Your task to perform on an android device: Go to Reddit.com Image 0: 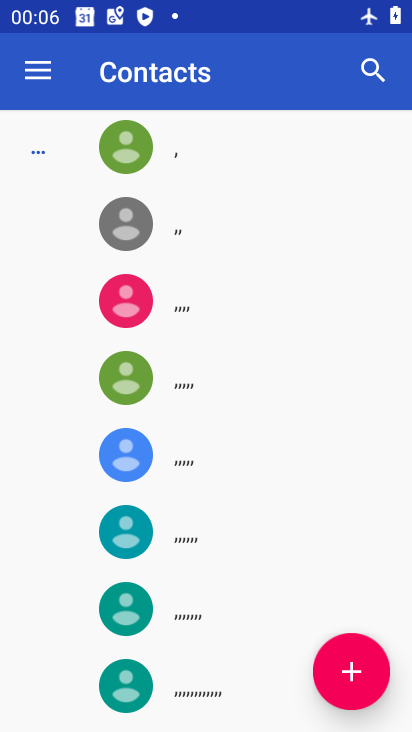
Step 0: press home button
Your task to perform on an android device: Go to Reddit.com Image 1: 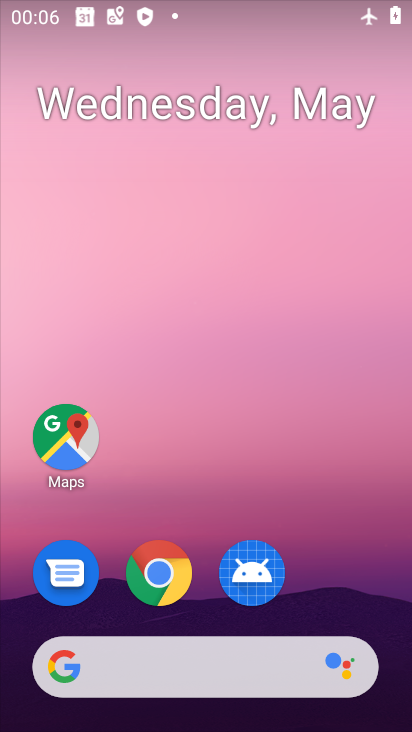
Step 1: click (202, 662)
Your task to perform on an android device: Go to Reddit.com Image 2: 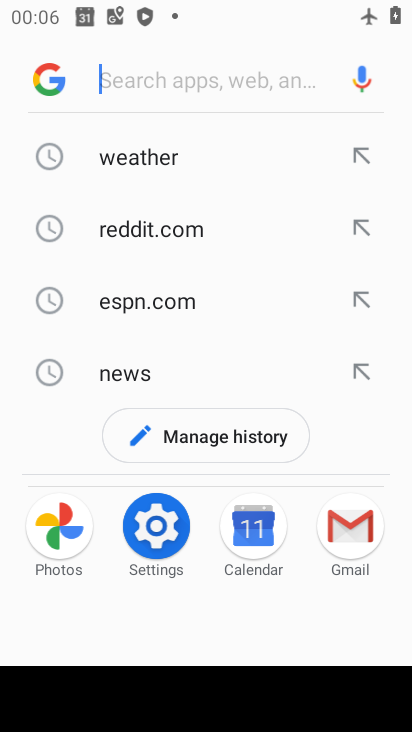
Step 2: click (134, 231)
Your task to perform on an android device: Go to Reddit.com Image 3: 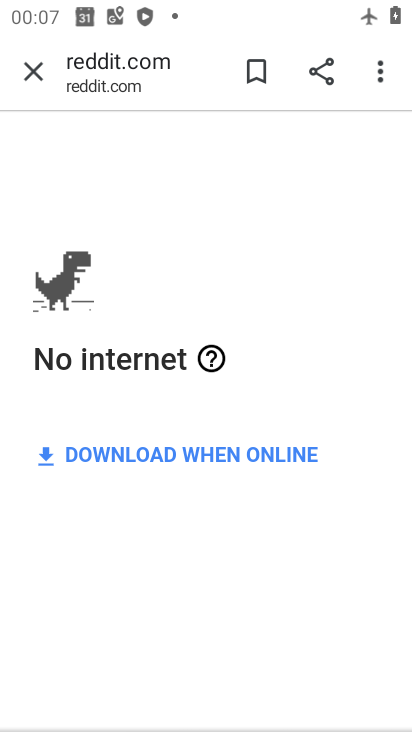
Step 3: task complete